Your task to perform on an android device: choose inbox layout in the gmail app Image 0: 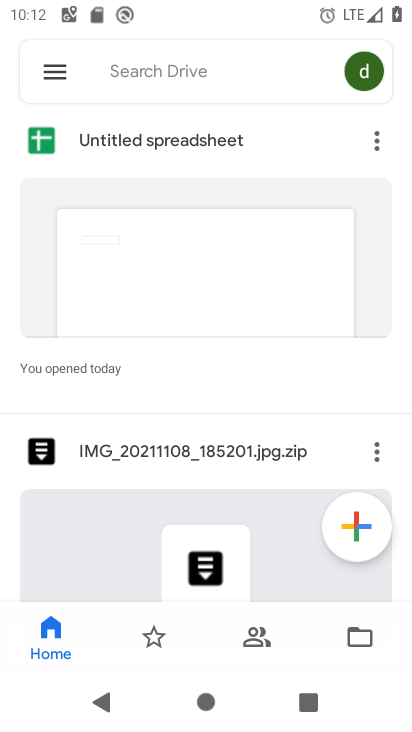
Step 0: press home button
Your task to perform on an android device: choose inbox layout in the gmail app Image 1: 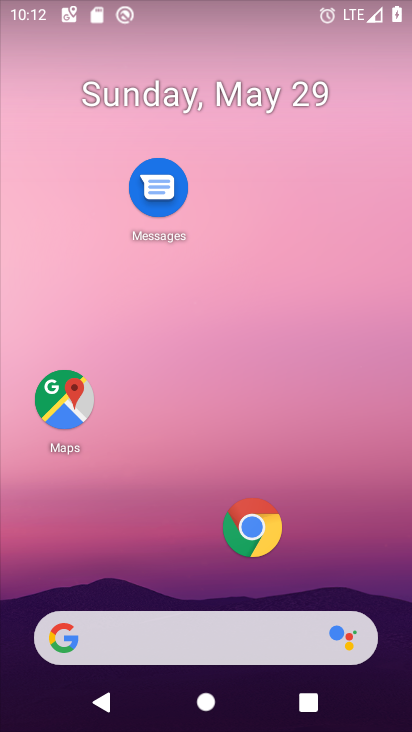
Step 1: drag from (205, 576) to (30, 64)
Your task to perform on an android device: choose inbox layout in the gmail app Image 2: 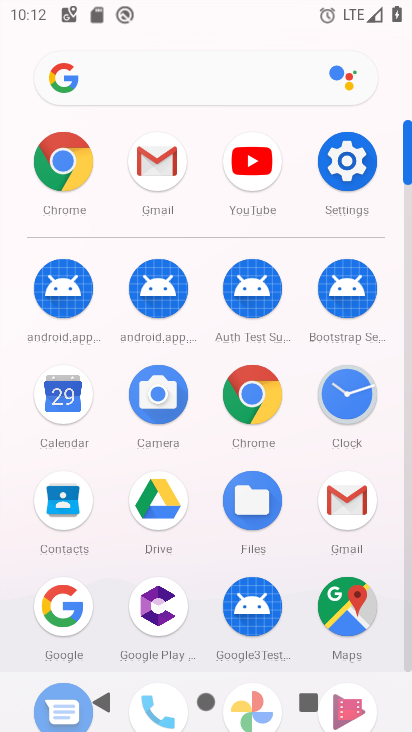
Step 2: click (346, 496)
Your task to perform on an android device: choose inbox layout in the gmail app Image 3: 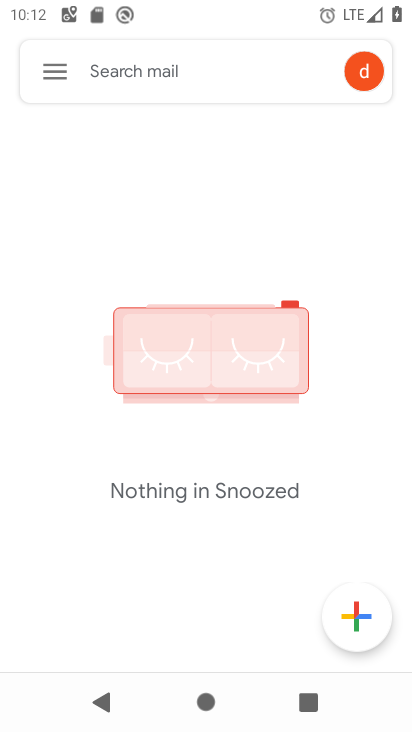
Step 3: click (48, 59)
Your task to perform on an android device: choose inbox layout in the gmail app Image 4: 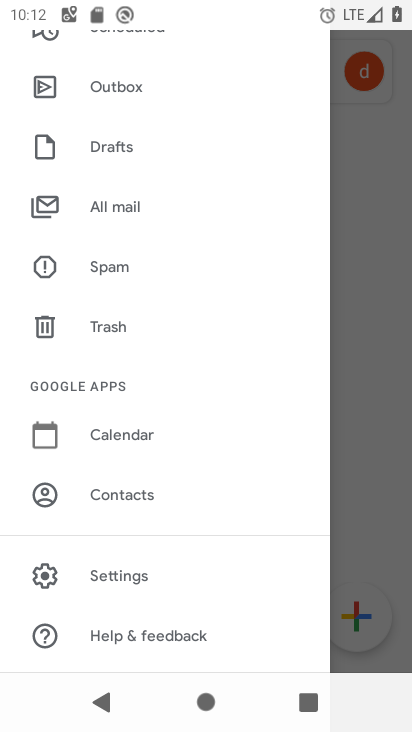
Step 4: click (156, 571)
Your task to perform on an android device: choose inbox layout in the gmail app Image 5: 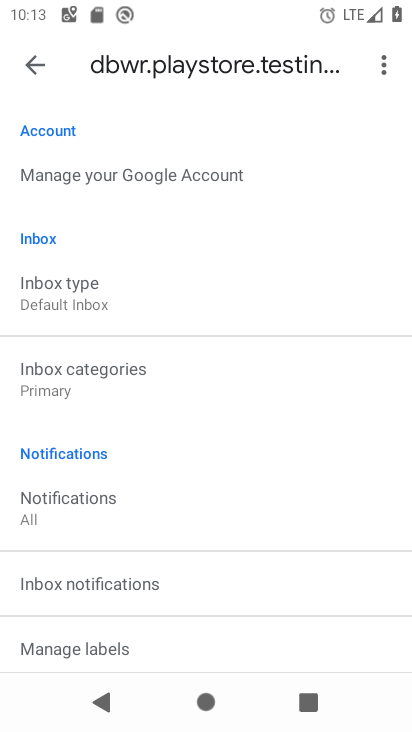
Step 5: click (121, 295)
Your task to perform on an android device: choose inbox layout in the gmail app Image 6: 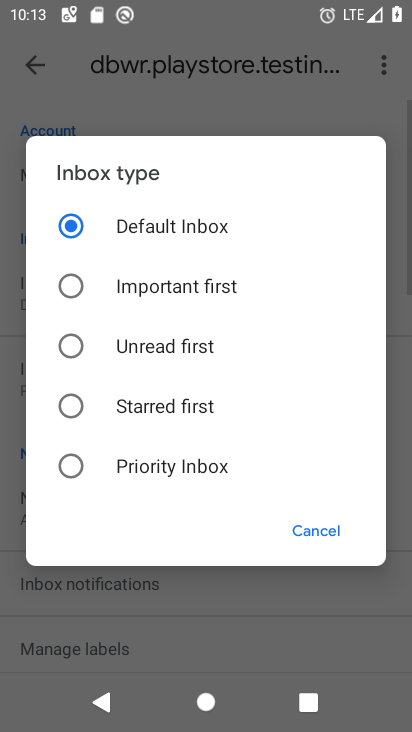
Step 6: click (77, 464)
Your task to perform on an android device: choose inbox layout in the gmail app Image 7: 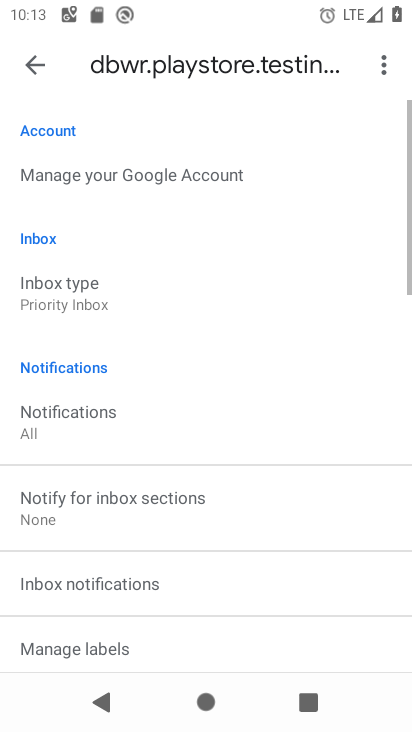
Step 7: task complete